Your task to perform on an android device: Search for vegetarian restaurants on Maps Image 0: 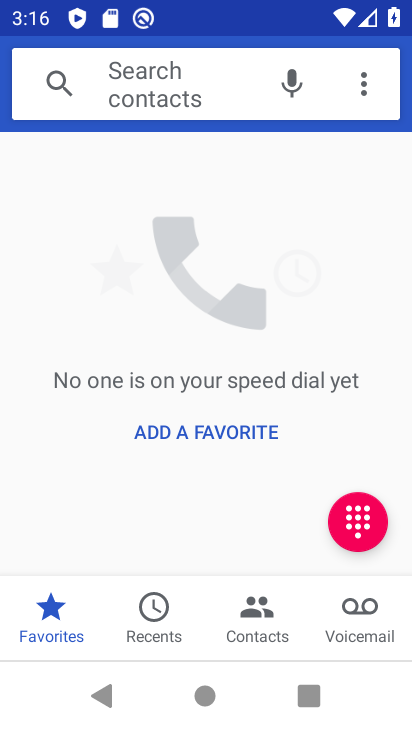
Step 0: press home button
Your task to perform on an android device: Search for vegetarian restaurants on Maps Image 1: 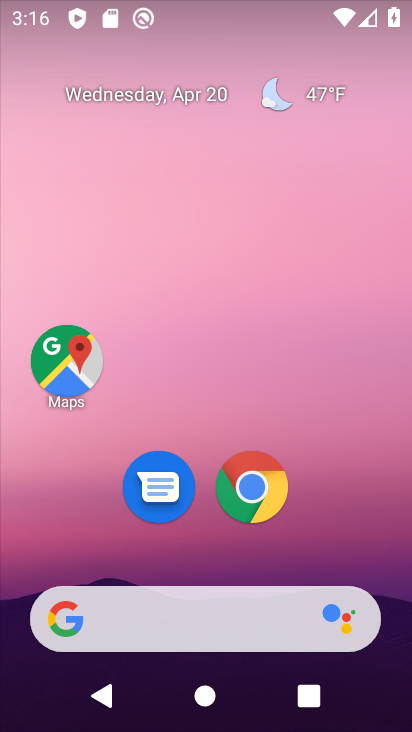
Step 1: click (88, 362)
Your task to perform on an android device: Search for vegetarian restaurants on Maps Image 2: 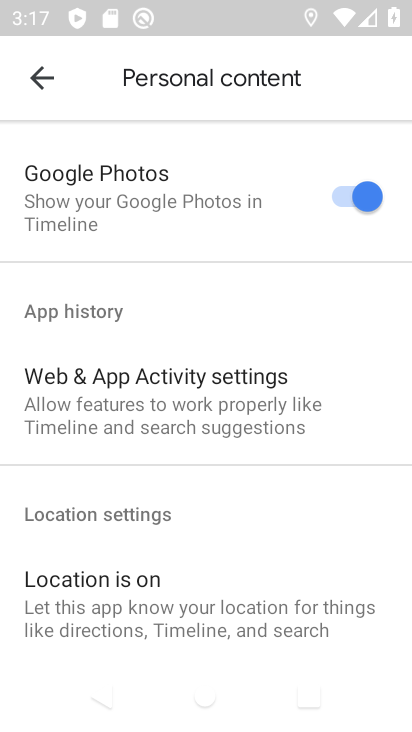
Step 2: click (45, 75)
Your task to perform on an android device: Search for vegetarian restaurants on Maps Image 3: 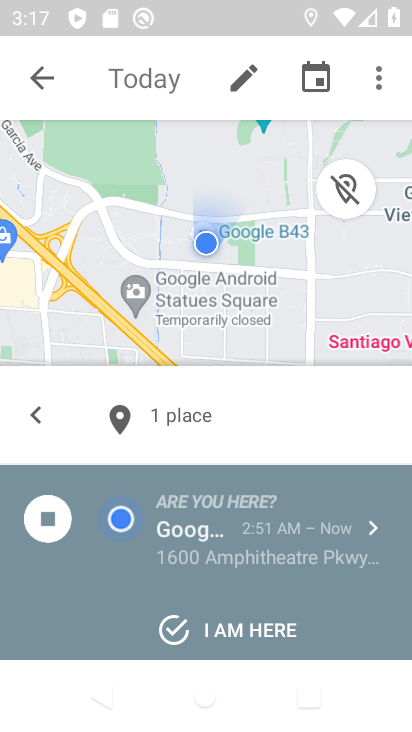
Step 3: click (33, 79)
Your task to perform on an android device: Search for vegetarian restaurants on Maps Image 4: 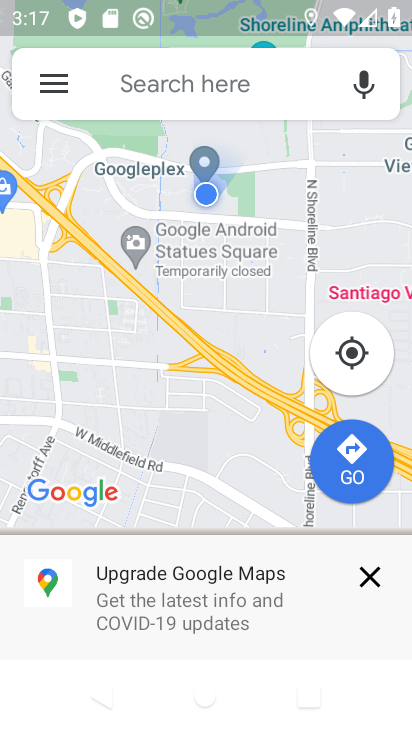
Step 4: click (193, 80)
Your task to perform on an android device: Search for vegetarian restaurants on Maps Image 5: 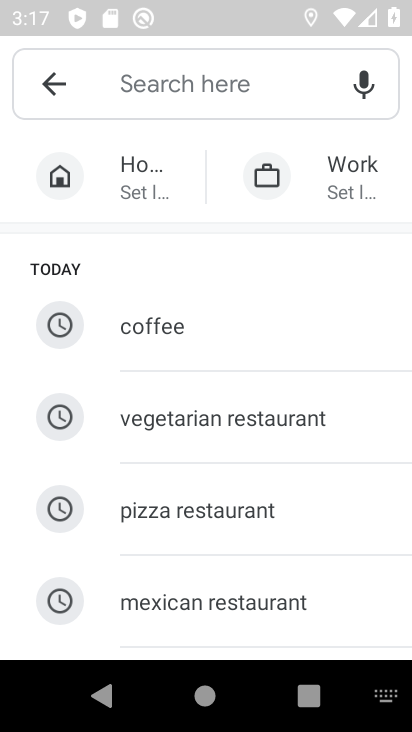
Step 5: click (260, 412)
Your task to perform on an android device: Search for vegetarian restaurants on Maps Image 6: 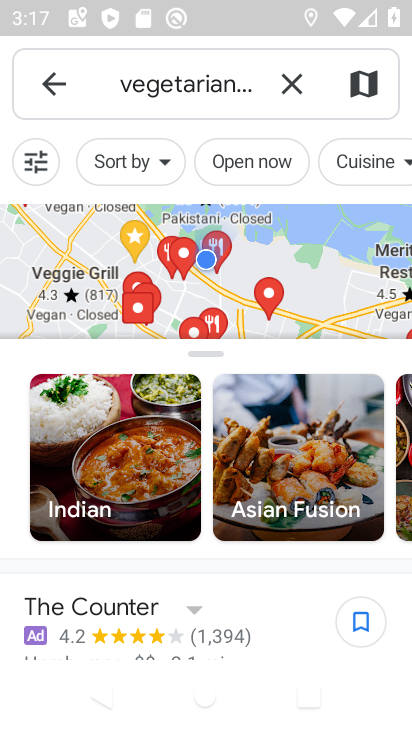
Step 6: task complete